Your task to perform on an android device: open chrome privacy settings Image 0: 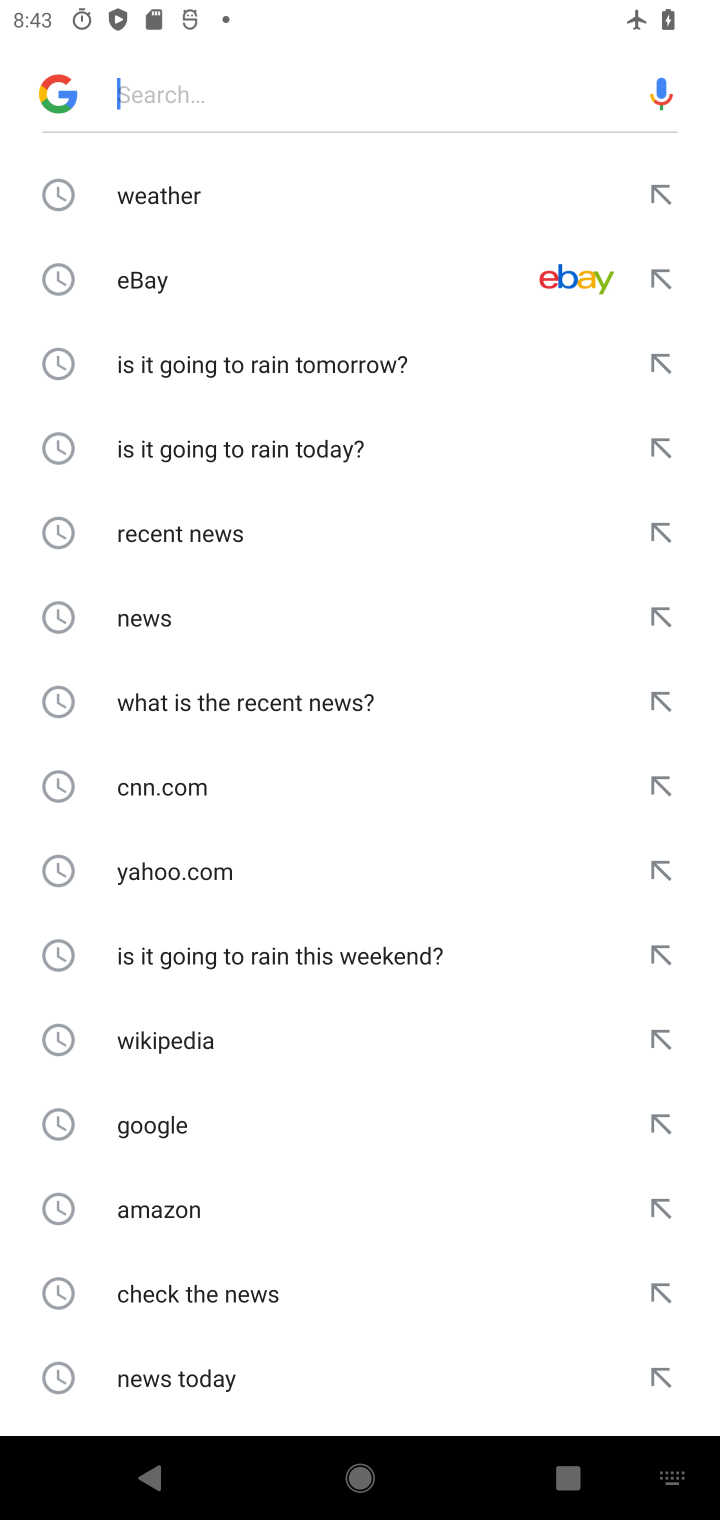
Step 0: press home button
Your task to perform on an android device: open chrome privacy settings Image 1: 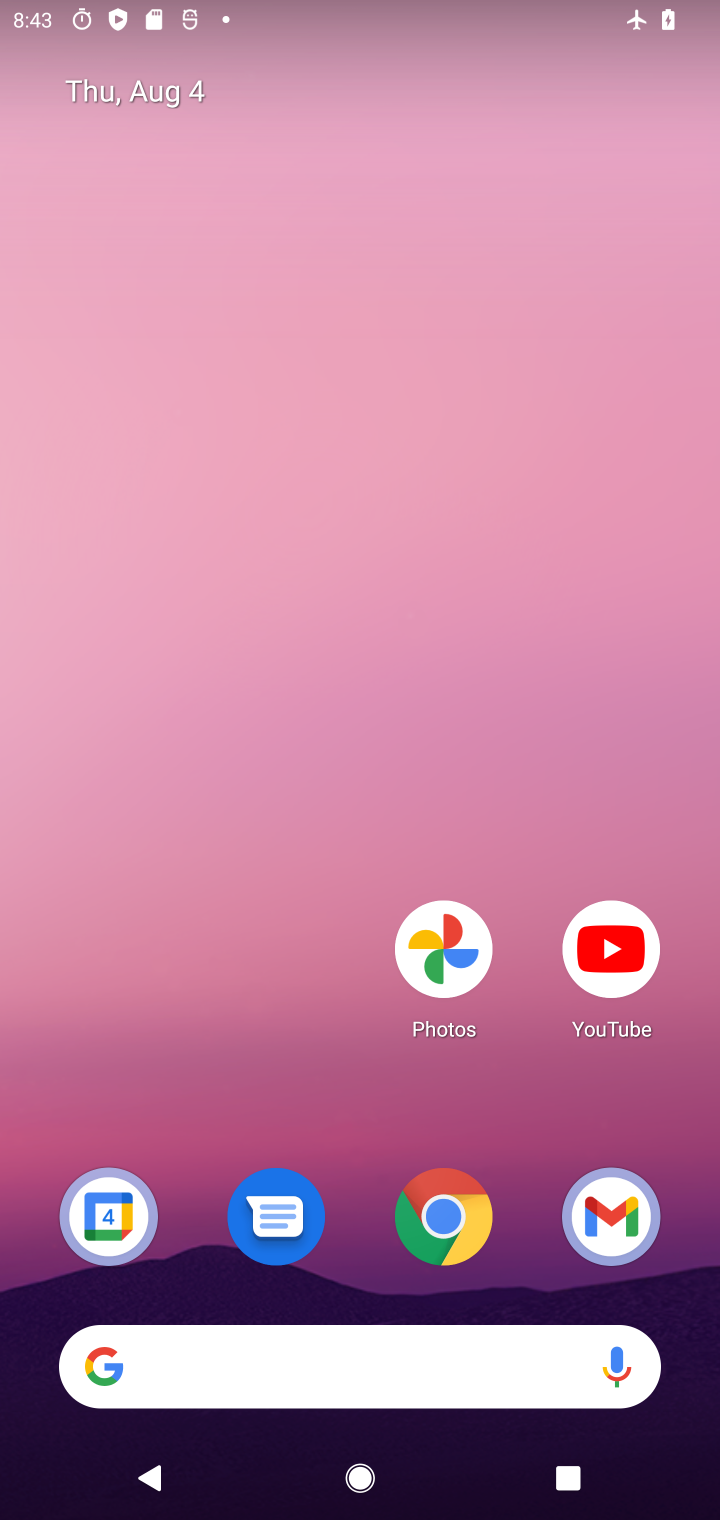
Step 1: click (441, 1215)
Your task to perform on an android device: open chrome privacy settings Image 2: 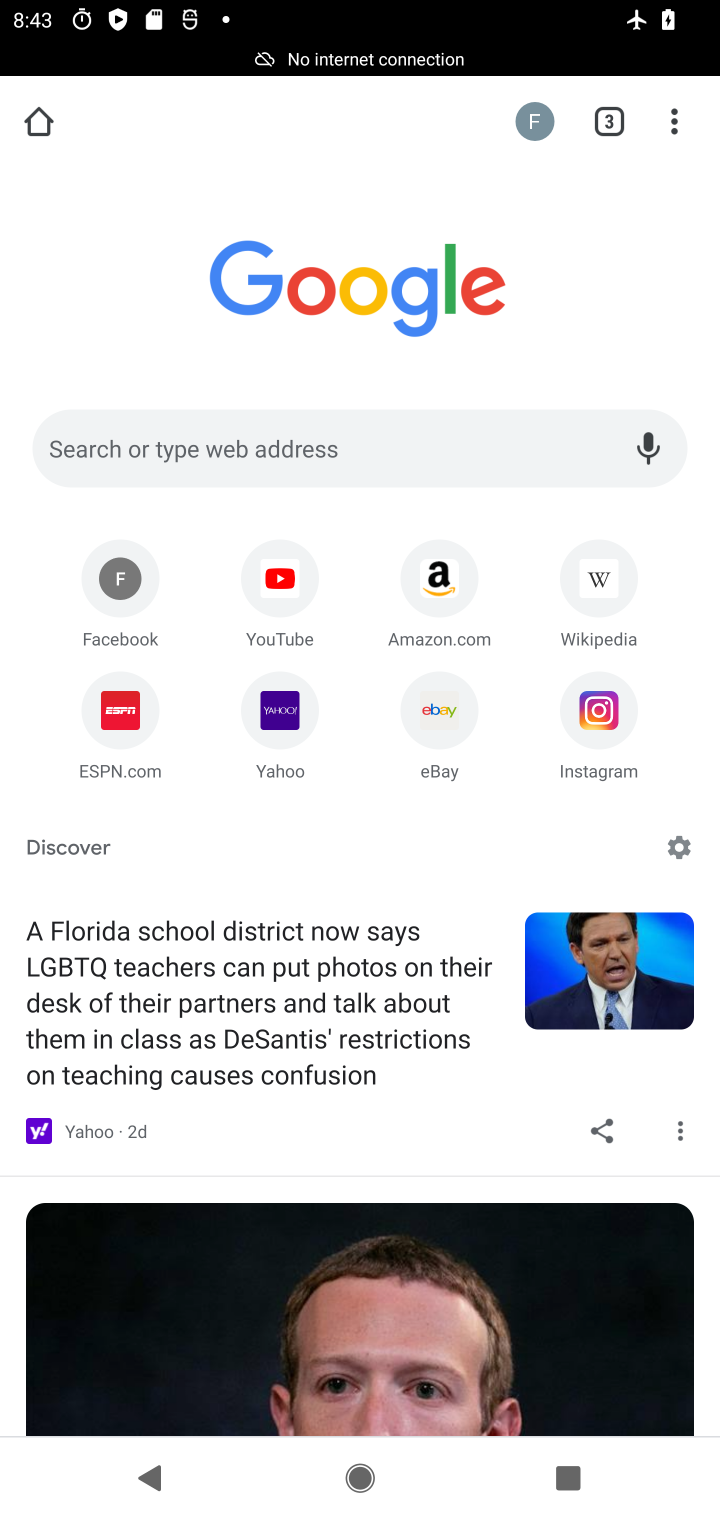
Step 2: click (674, 122)
Your task to perform on an android device: open chrome privacy settings Image 3: 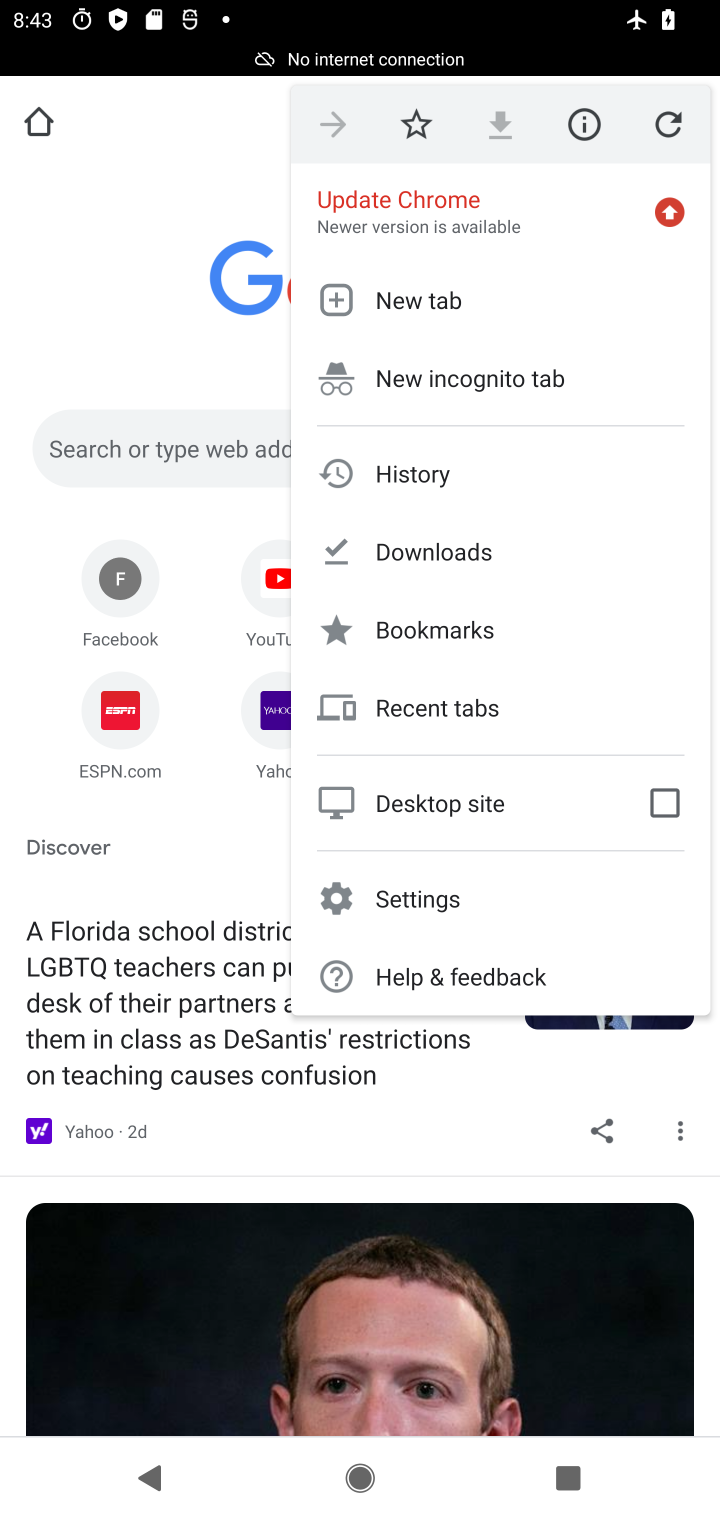
Step 3: click (423, 895)
Your task to perform on an android device: open chrome privacy settings Image 4: 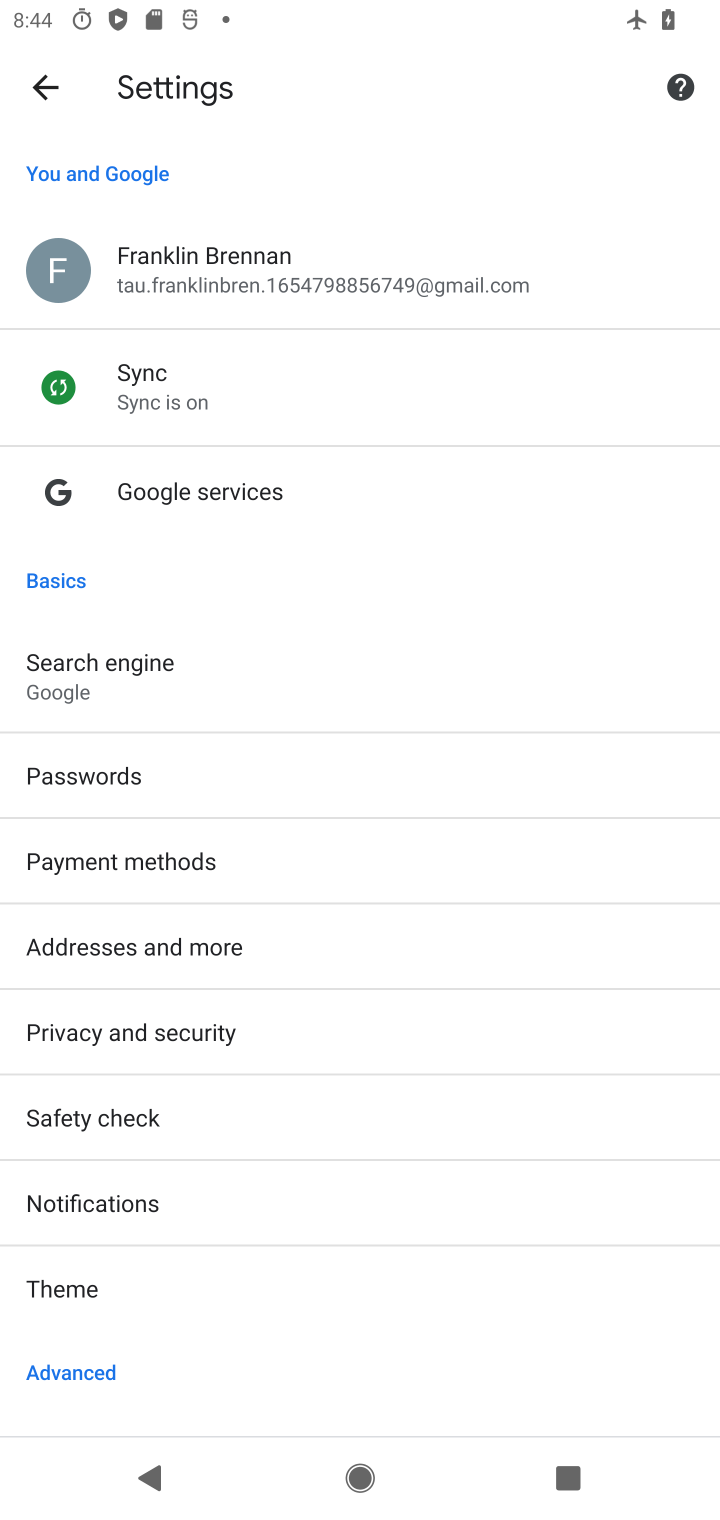
Step 4: click (132, 1029)
Your task to perform on an android device: open chrome privacy settings Image 5: 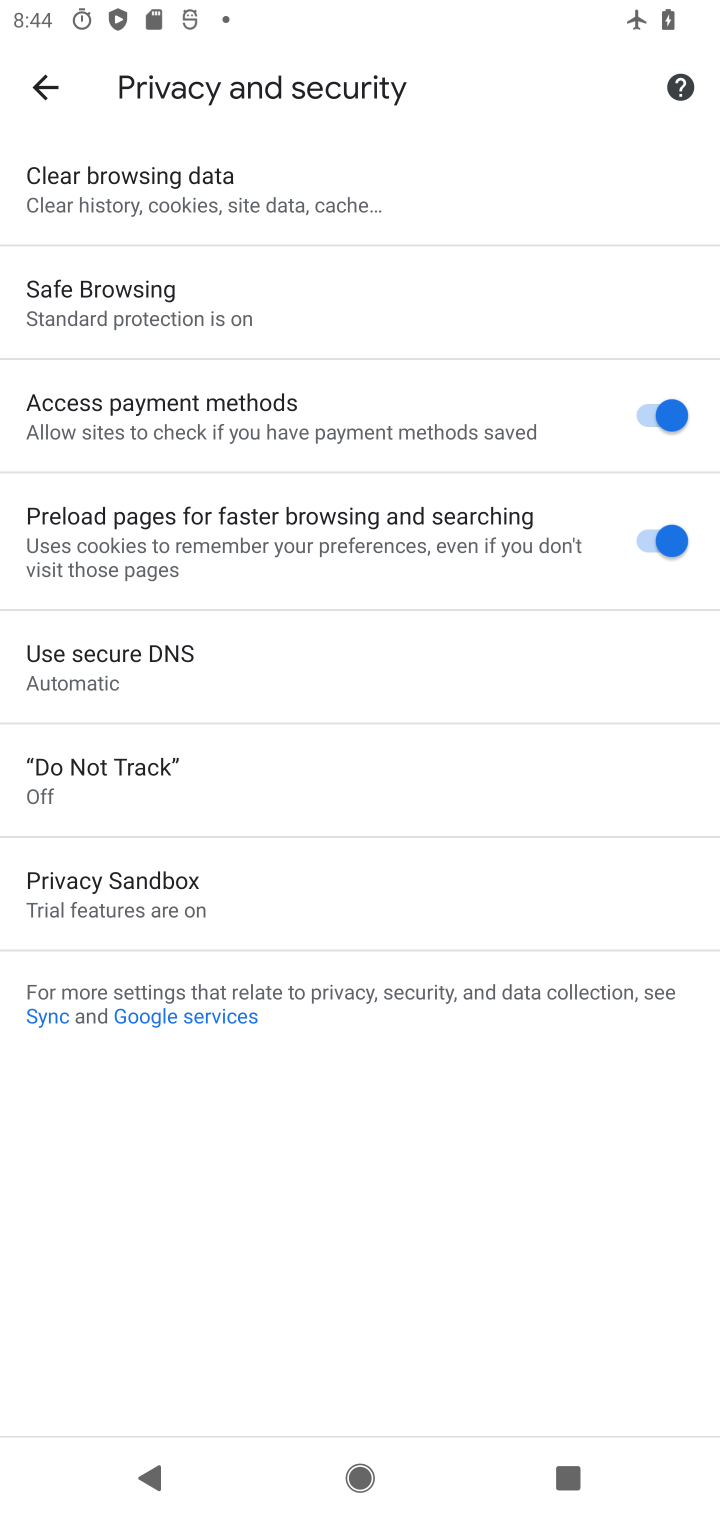
Step 5: task complete